Your task to perform on an android device: Open Google Maps Image 0: 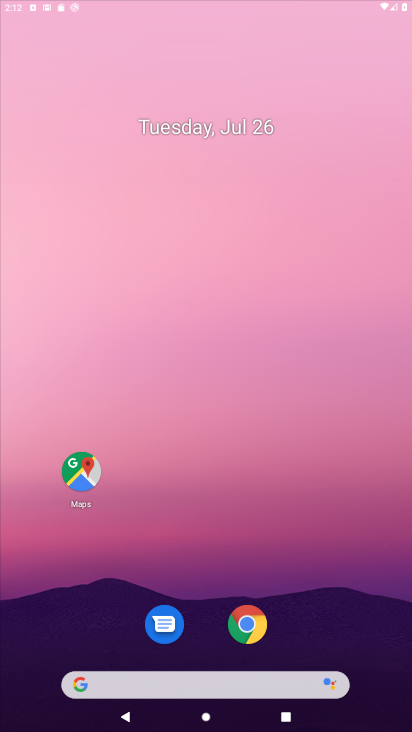
Step 0: click (194, 331)
Your task to perform on an android device: Open Google Maps Image 1: 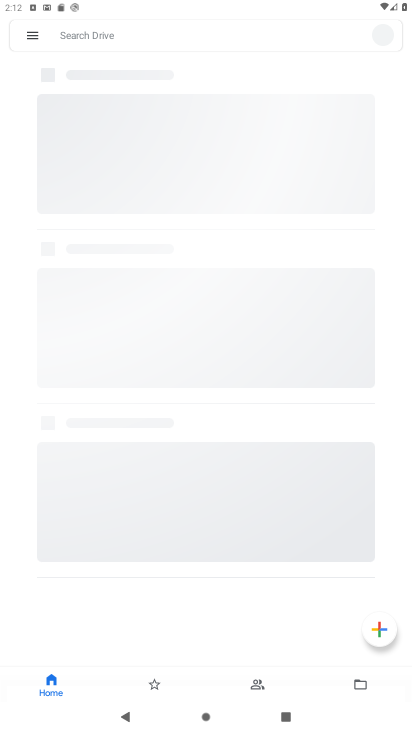
Step 1: drag from (178, 677) to (160, 177)
Your task to perform on an android device: Open Google Maps Image 2: 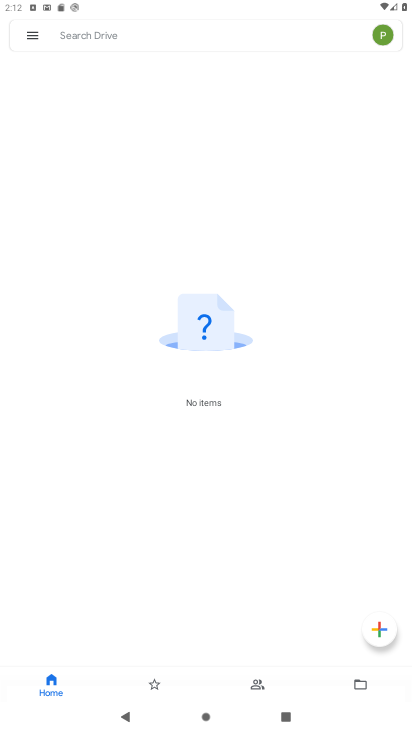
Step 2: press home button
Your task to perform on an android device: Open Google Maps Image 3: 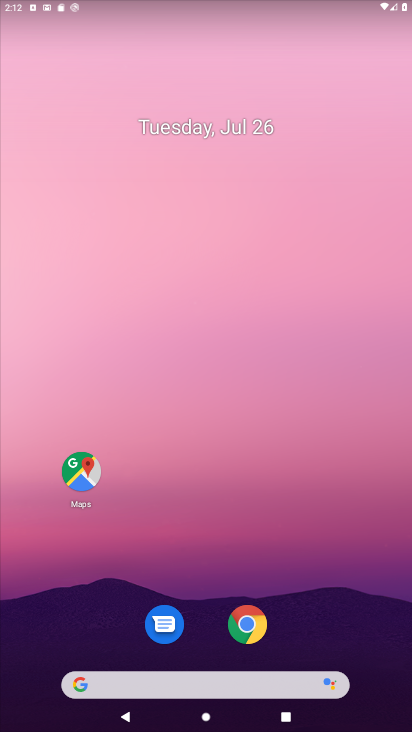
Step 3: click (82, 475)
Your task to perform on an android device: Open Google Maps Image 4: 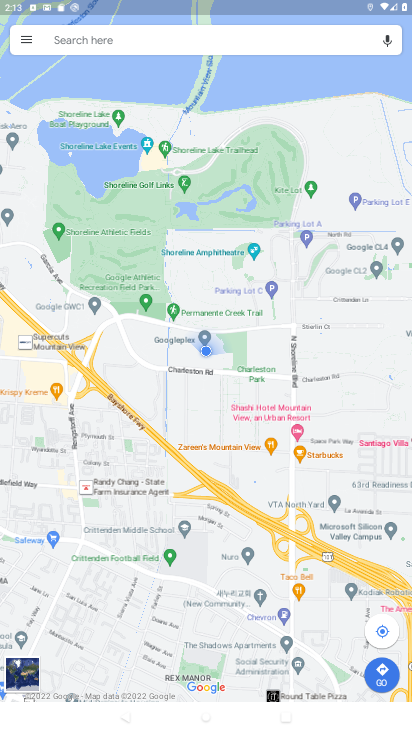
Step 4: task complete